Your task to perform on an android device: open chrome and create a bookmark for the current page Image 0: 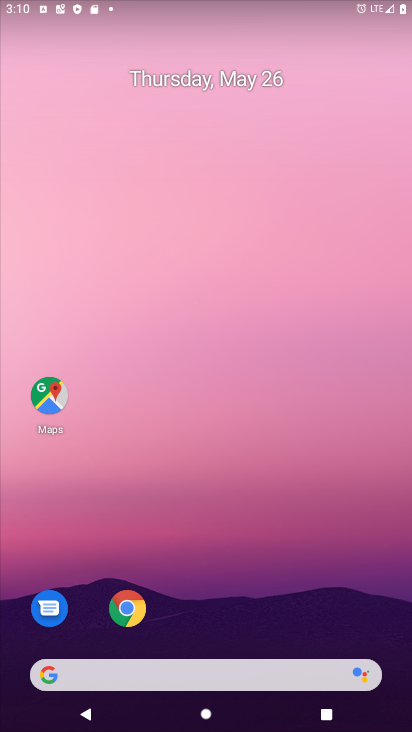
Step 0: click (131, 609)
Your task to perform on an android device: open chrome and create a bookmark for the current page Image 1: 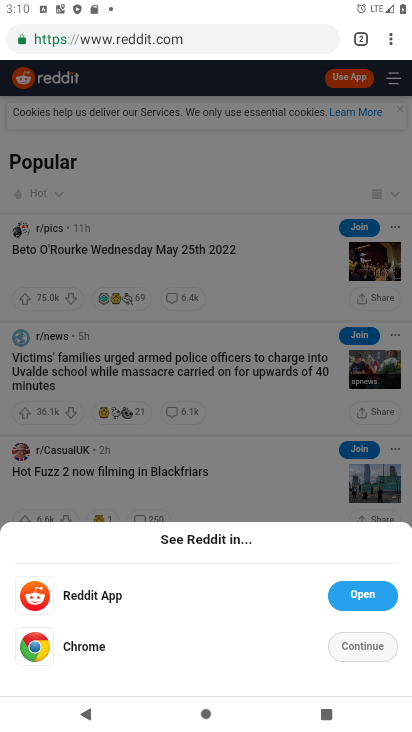
Step 1: click (388, 45)
Your task to perform on an android device: open chrome and create a bookmark for the current page Image 2: 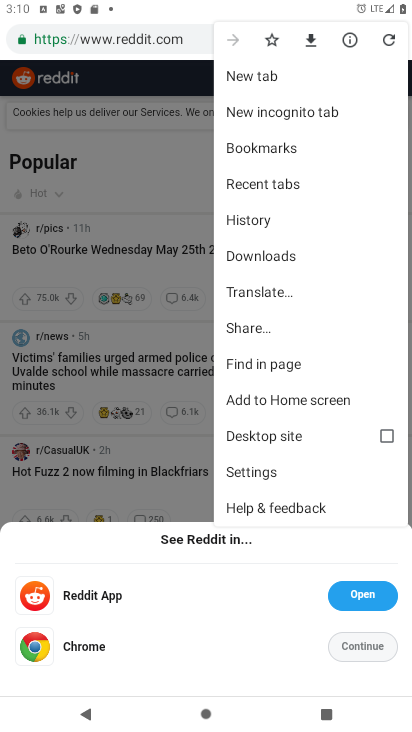
Step 2: click (270, 38)
Your task to perform on an android device: open chrome and create a bookmark for the current page Image 3: 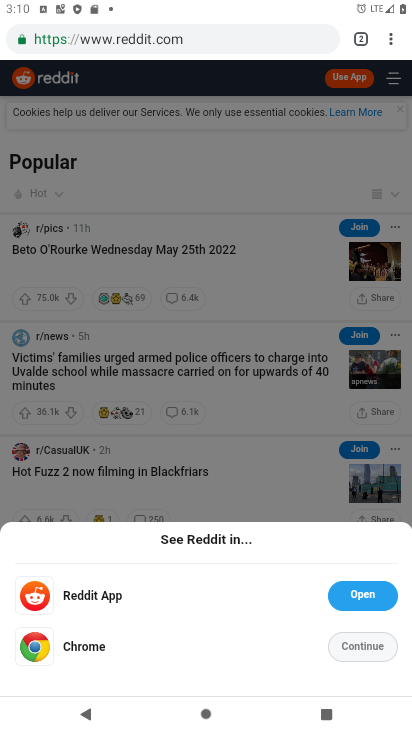
Step 3: task complete